Your task to perform on an android device: open chrome privacy settings Image 0: 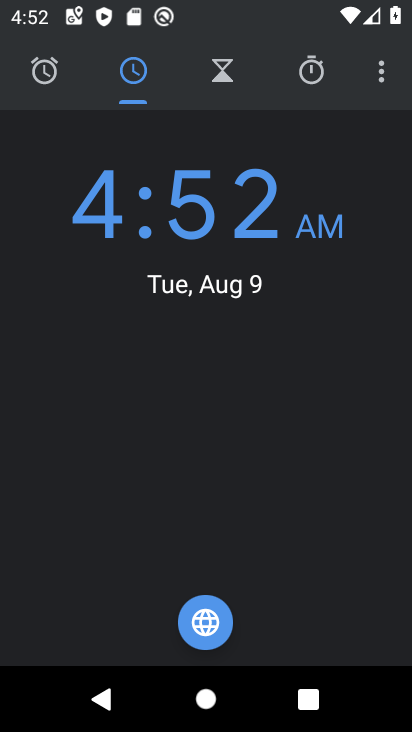
Step 0: press home button
Your task to perform on an android device: open chrome privacy settings Image 1: 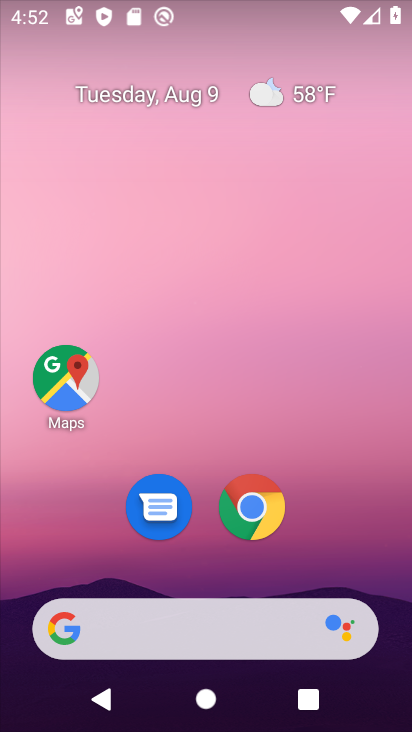
Step 1: click (246, 488)
Your task to perform on an android device: open chrome privacy settings Image 2: 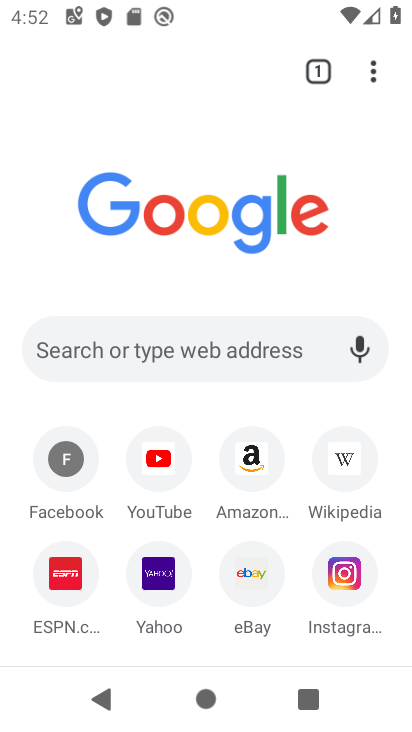
Step 2: click (378, 66)
Your task to perform on an android device: open chrome privacy settings Image 3: 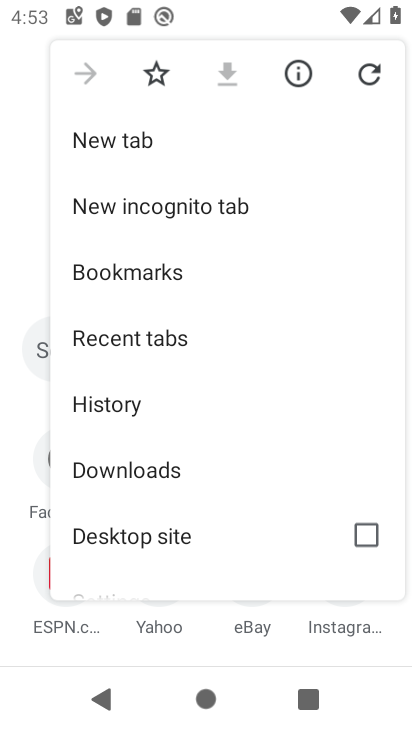
Step 3: drag from (124, 518) to (107, 105)
Your task to perform on an android device: open chrome privacy settings Image 4: 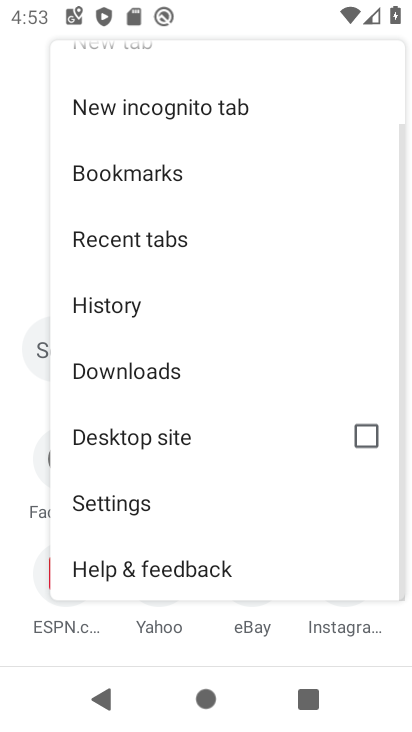
Step 4: click (140, 510)
Your task to perform on an android device: open chrome privacy settings Image 5: 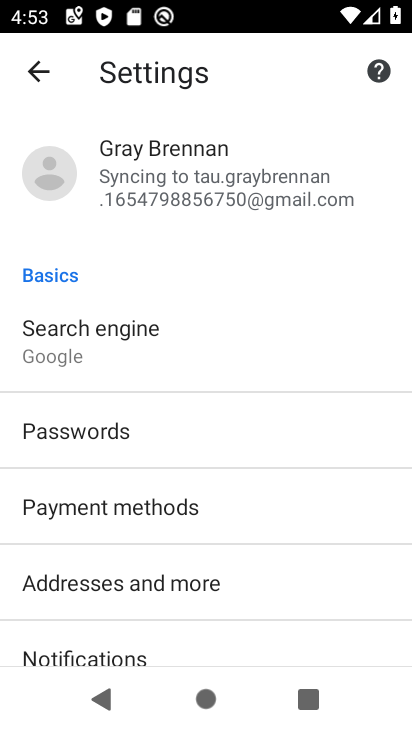
Step 5: drag from (185, 553) to (132, 193)
Your task to perform on an android device: open chrome privacy settings Image 6: 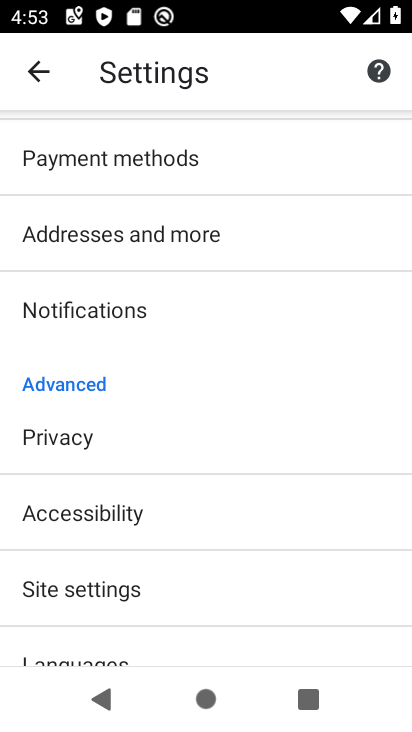
Step 6: click (65, 434)
Your task to perform on an android device: open chrome privacy settings Image 7: 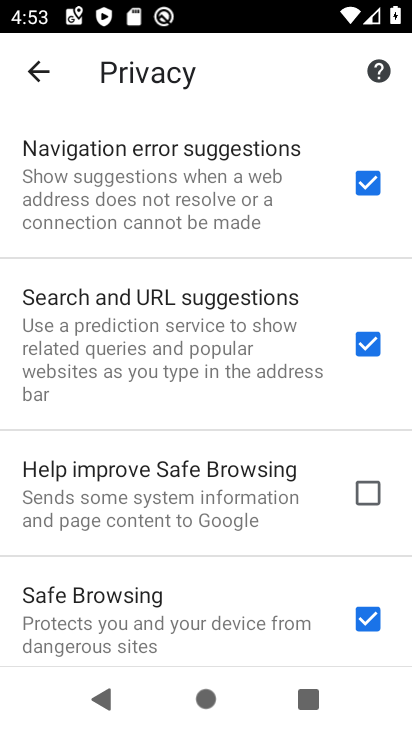
Step 7: task complete